Your task to perform on an android device: set an alarm Image 0: 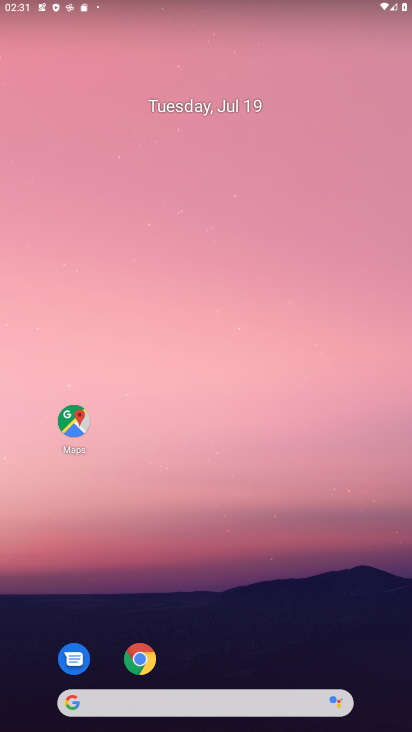
Step 0: press home button
Your task to perform on an android device: set an alarm Image 1: 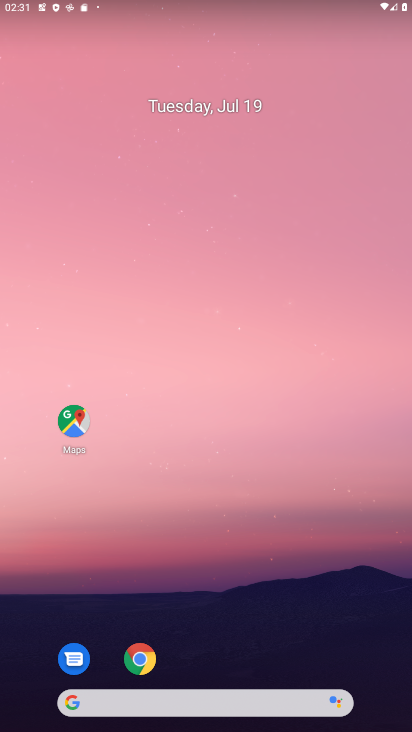
Step 1: drag from (313, 657) to (234, 19)
Your task to perform on an android device: set an alarm Image 2: 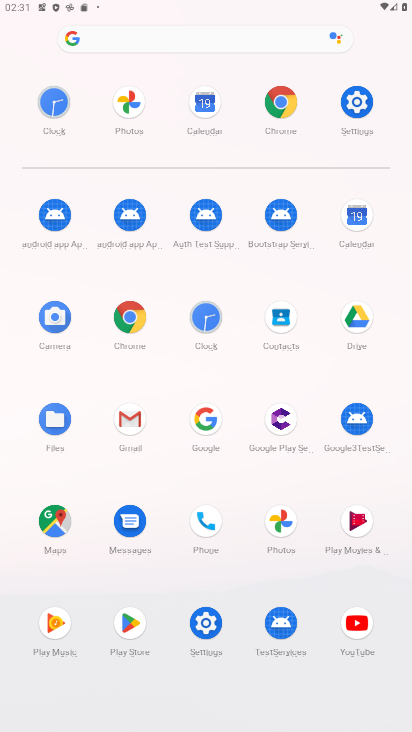
Step 2: click (204, 353)
Your task to perform on an android device: set an alarm Image 3: 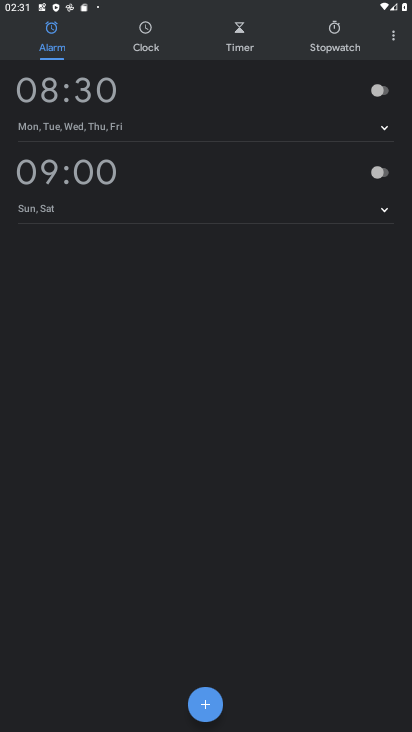
Step 3: click (213, 717)
Your task to perform on an android device: set an alarm Image 4: 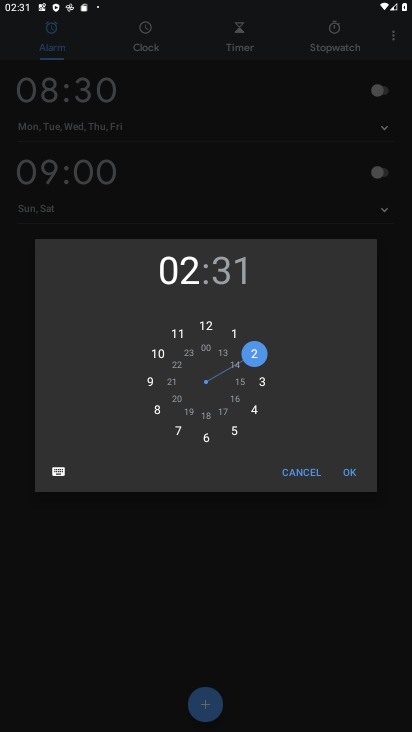
Step 4: click (356, 478)
Your task to perform on an android device: set an alarm Image 5: 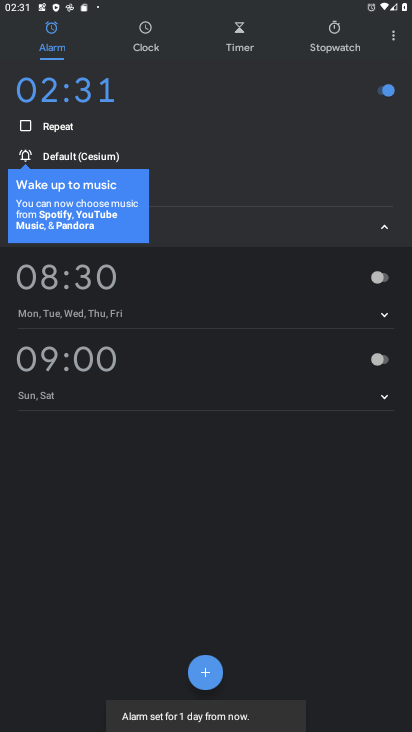
Step 5: task complete